Your task to perform on an android device: check android version Image 0: 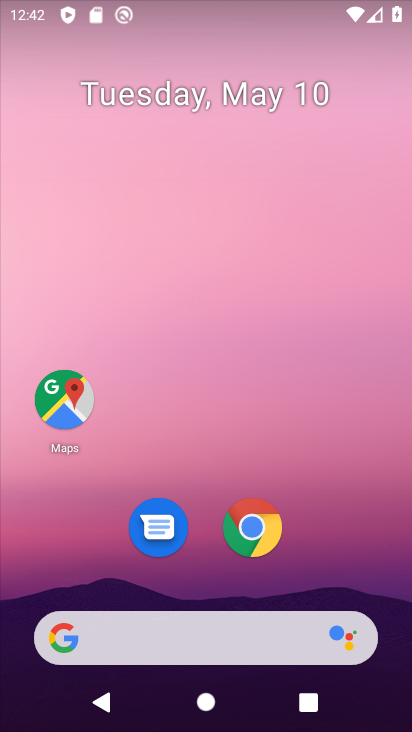
Step 0: drag from (290, 430) to (265, 151)
Your task to perform on an android device: check android version Image 1: 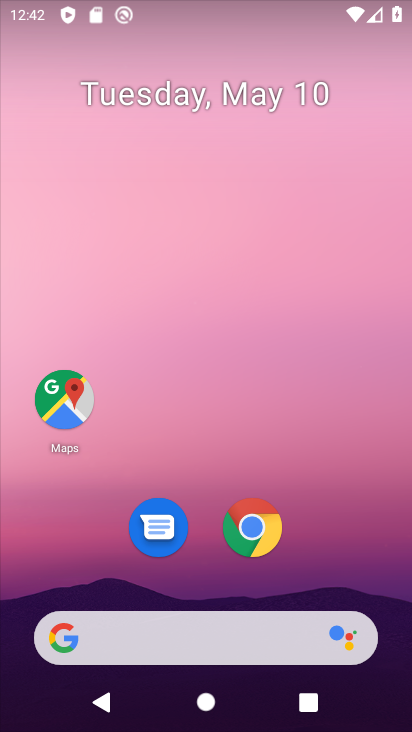
Step 1: drag from (336, 565) to (358, 225)
Your task to perform on an android device: check android version Image 2: 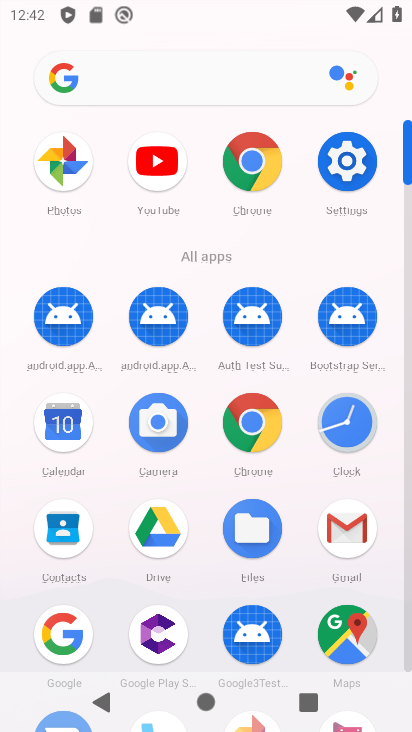
Step 2: click (347, 177)
Your task to perform on an android device: check android version Image 3: 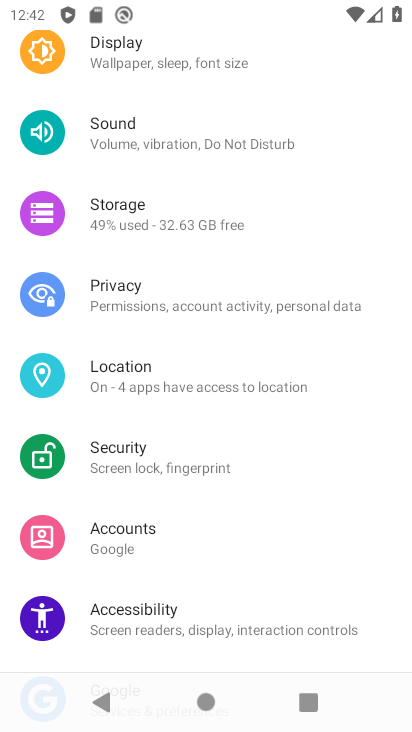
Step 3: drag from (274, 610) to (281, 143)
Your task to perform on an android device: check android version Image 4: 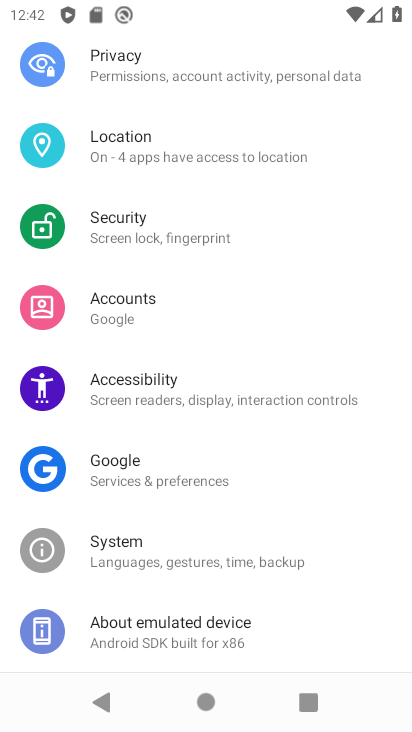
Step 4: click (225, 621)
Your task to perform on an android device: check android version Image 5: 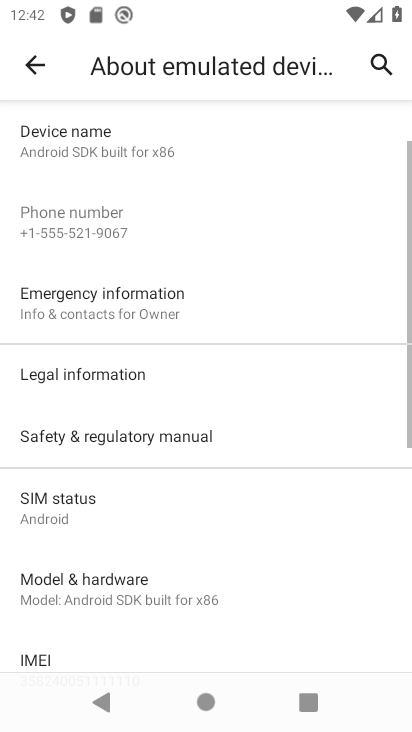
Step 5: drag from (239, 612) to (242, 189)
Your task to perform on an android device: check android version Image 6: 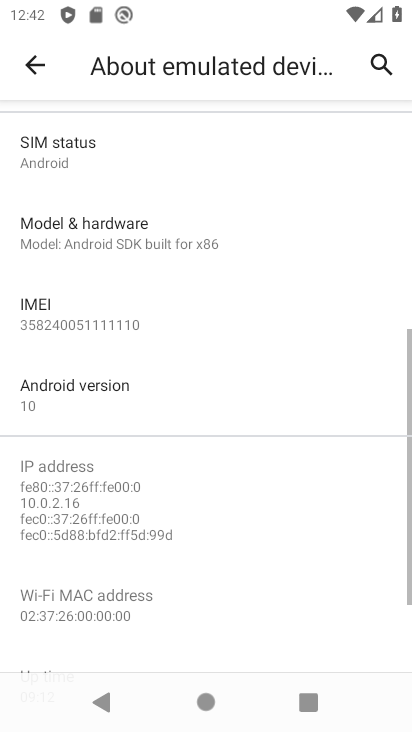
Step 6: click (169, 414)
Your task to perform on an android device: check android version Image 7: 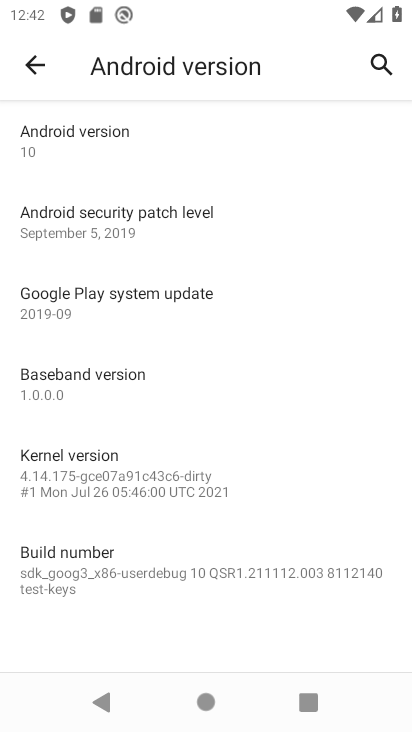
Step 7: click (189, 142)
Your task to perform on an android device: check android version Image 8: 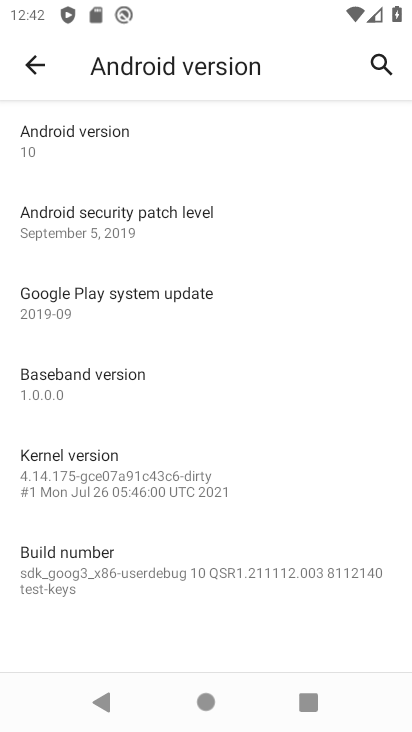
Step 8: task complete